Your task to perform on an android device: Search for vegetarian restaurants on Maps Image 0: 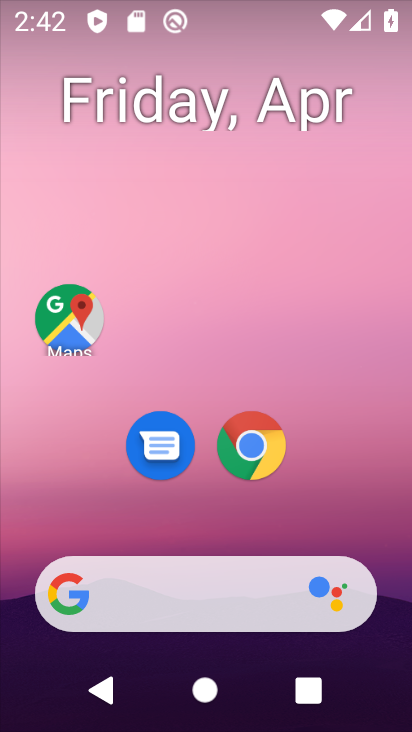
Step 0: click (78, 315)
Your task to perform on an android device: Search for vegetarian restaurants on Maps Image 1: 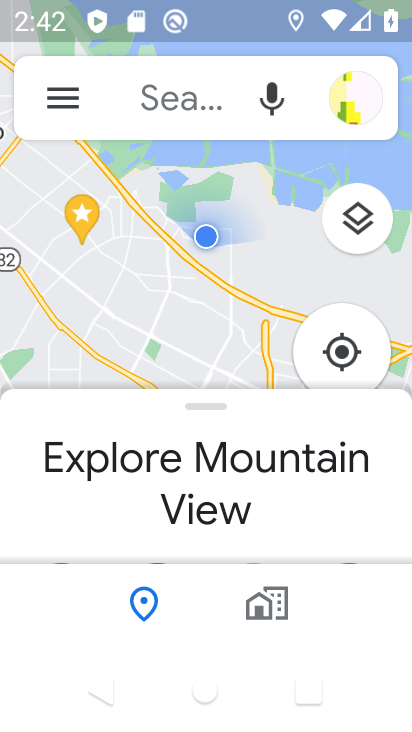
Step 1: click (208, 102)
Your task to perform on an android device: Search for vegetarian restaurants on Maps Image 2: 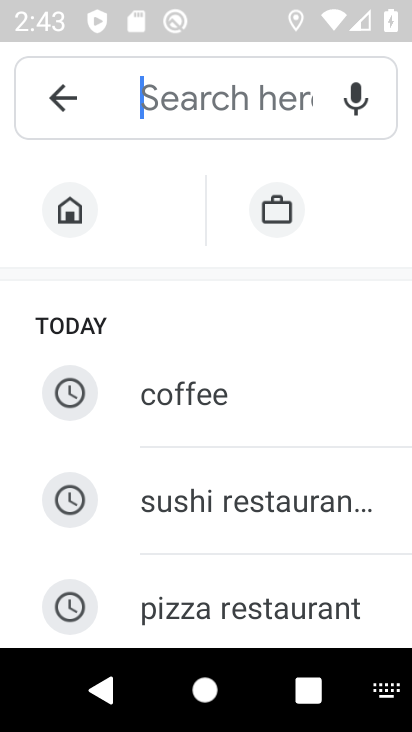
Step 2: type "vegetarian restaurants"
Your task to perform on an android device: Search for vegetarian restaurants on Maps Image 3: 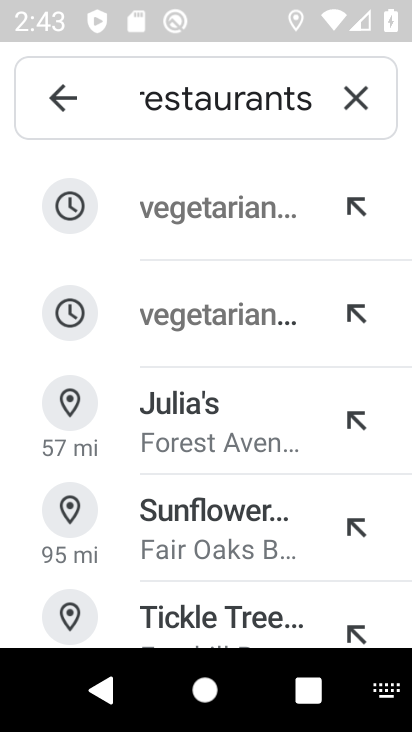
Step 3: click (269, 319)
Your task to perform on an android device: Search for vegetarian restaurants on Maps Image 4: 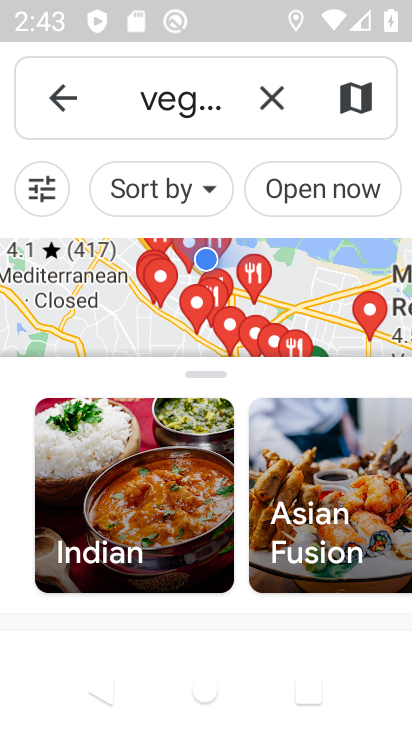
Step 4: task complete